Your task to perform on an android device: Go to eBay Image 0: 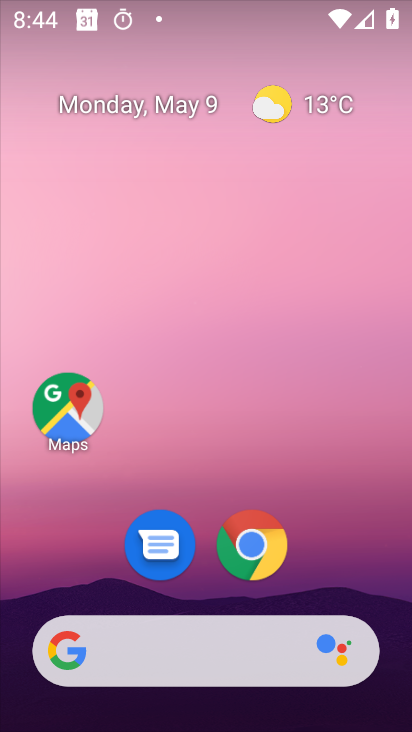
Step 0: drag from (357, 555) to (408, 330)
Your task to perform on an android device: Go to eBay Image 1: 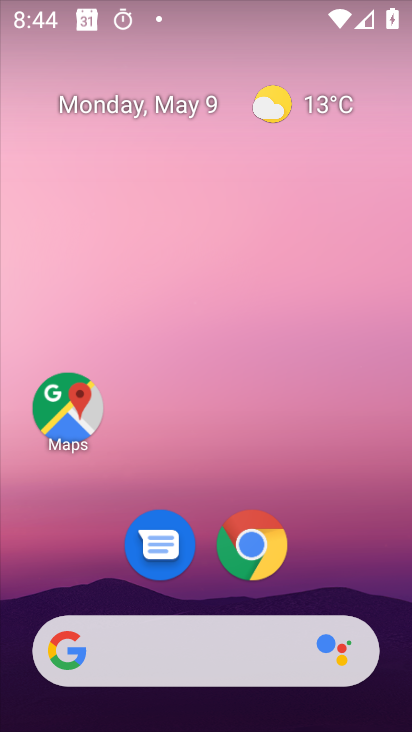
Step 1: click (273, 548)
Your task to perform on an android device: Go to eBay Image 2: 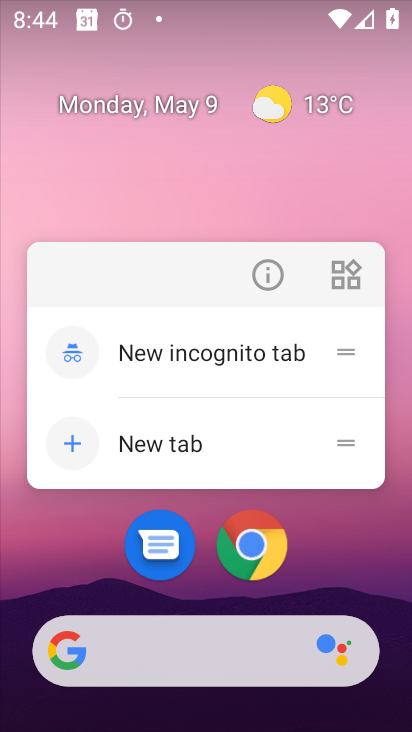
Step 2: click (271, 548)
Your task to perform on an android device: Go to eBay Image 3: 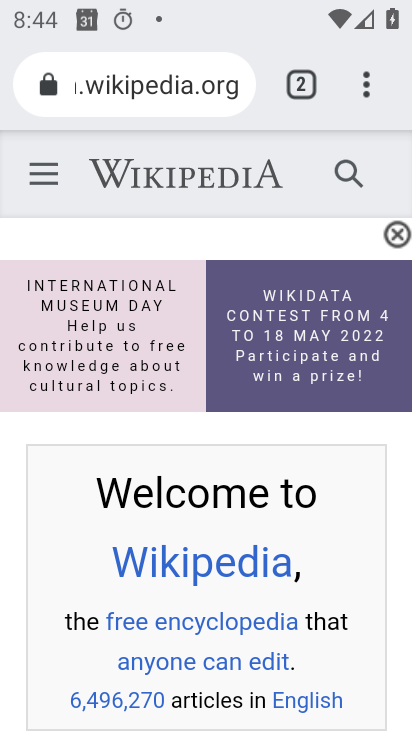
Step 3: click (197, 95)
Your task to perform on an android device: Go to eBay Image 4: 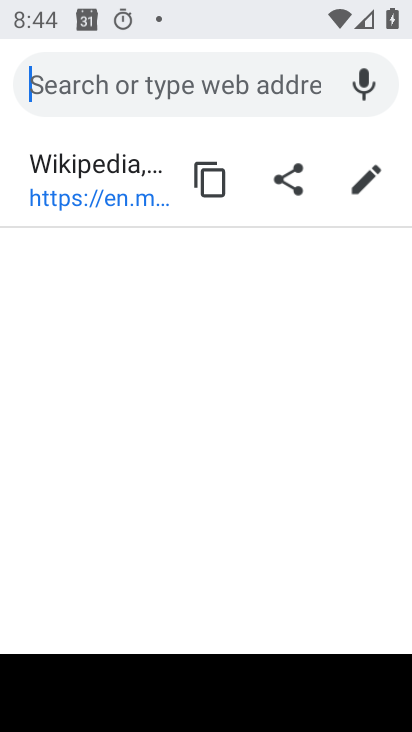
Step 4: type "ebay"
Your task to perform on an android device: Go to eBay Image 5: 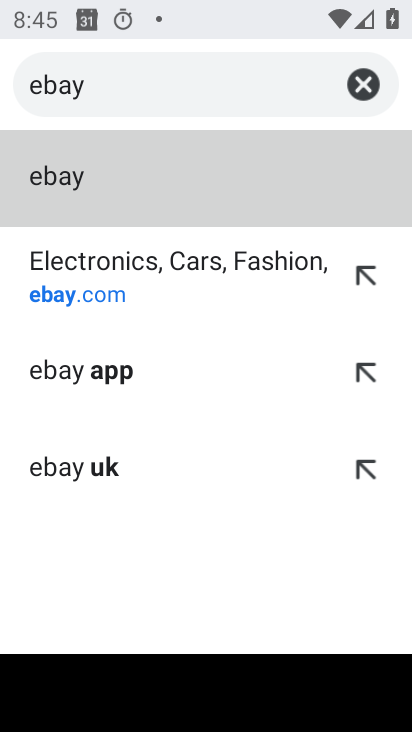
Step 5: click (118, 160)
Your task to perform on an android device: Go to eBay Image 6: 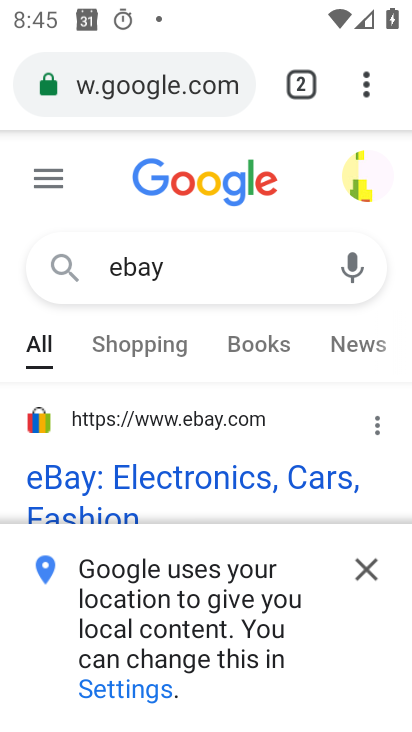
Step 6: click (202, 478)
Your task to perform on an android device: Go to eBay Image 7: 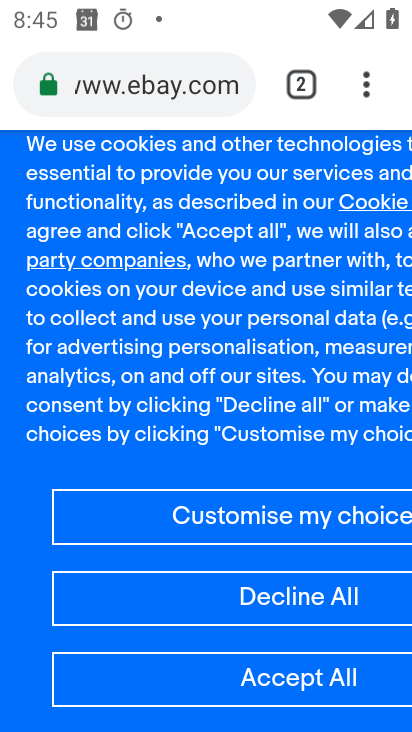
Step 7: task complete